Your task to perform on an android device: Open Yahoo.com Image 0: 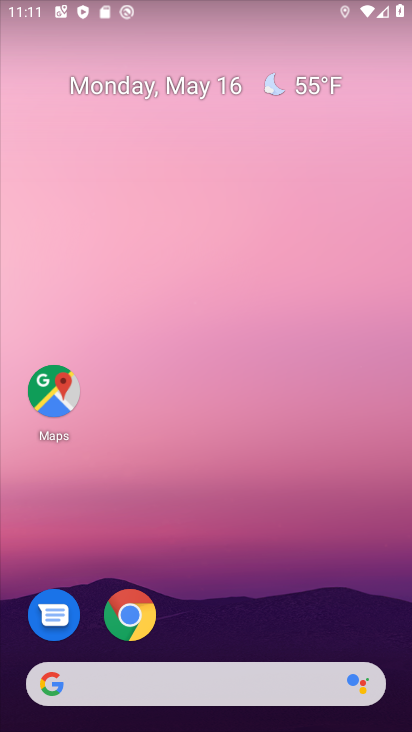
Step 0: click (131, 607)
Your task to perform on an android device: Open Yahoo.com Image 1: 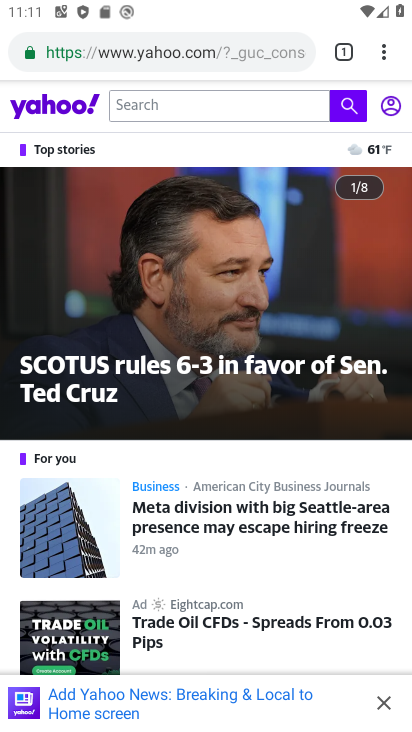
Step 1: task complete